Your task to perform on an android device: Go to Maps Image 0: 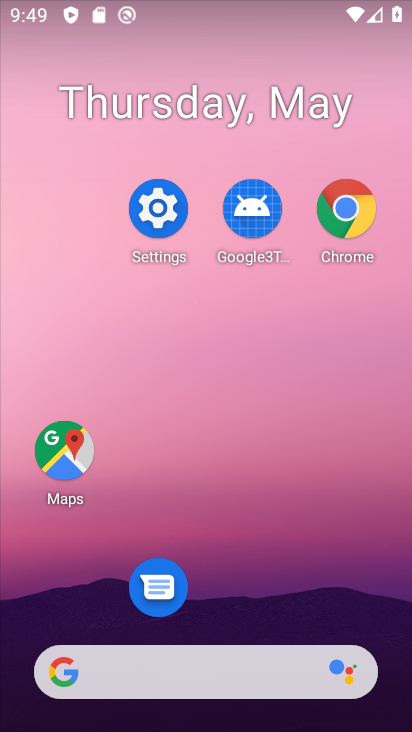
Step 0: click (57, 443)
Your task to perform on an android device: Go to Maps Image 1: 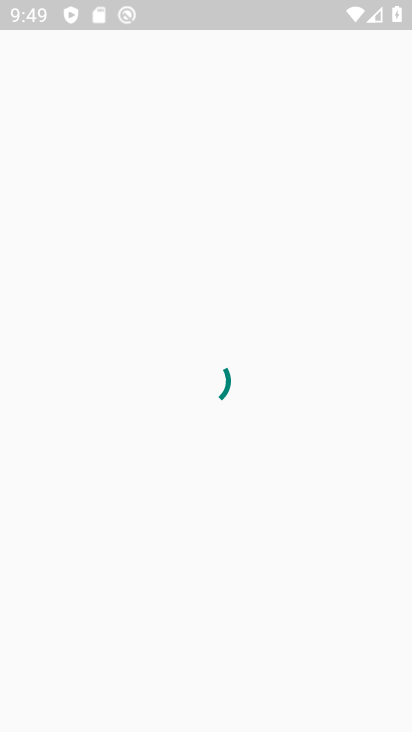
Step 1: task complete